Your task to perform on an android device: Do I have any events this weekend? Image 0: 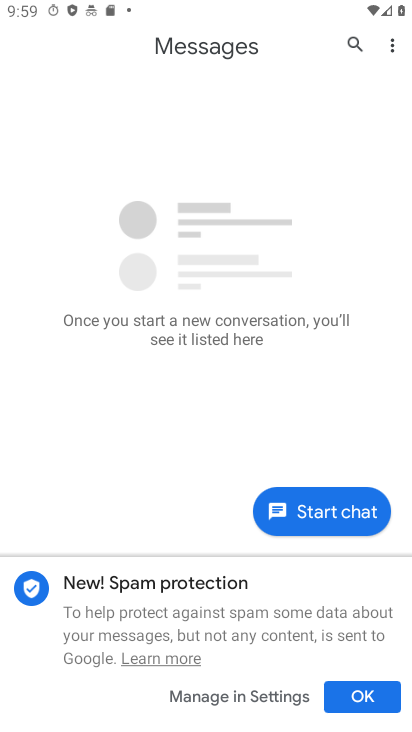
Step 0: click (354, 695)
Your task to perform on an android device: Do I have any events this weekend? Image 1: 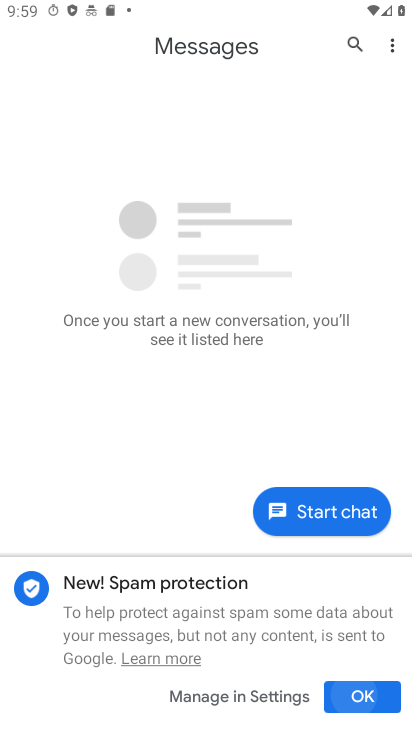
Step 1: click (355, 692)
Your task to perform on an android device: Do I have any events this weekend? Image 2: 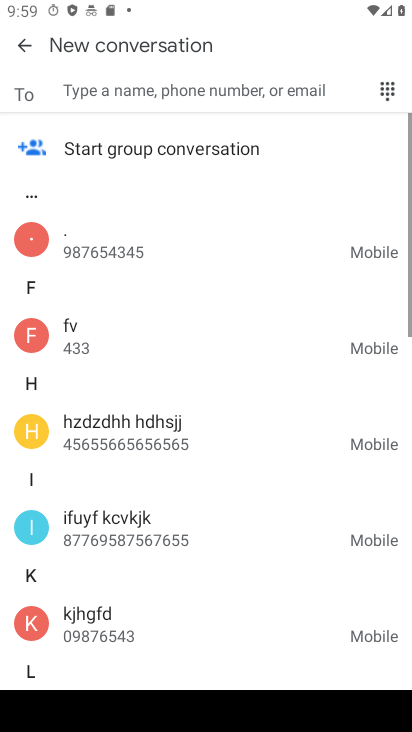
Step 2: click (23, 49)
Your task to perform on an android device: Do I have any events this weekend? Image 3: 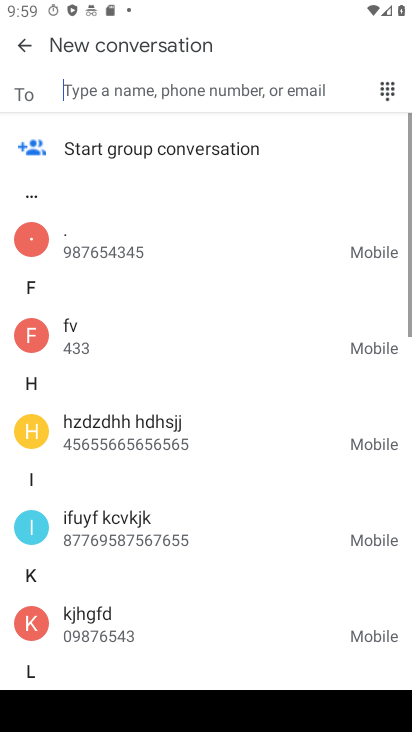
Step 3: click (22, 50)
Your task to perform on an android device: Do I have any events this weekend? Image 4: 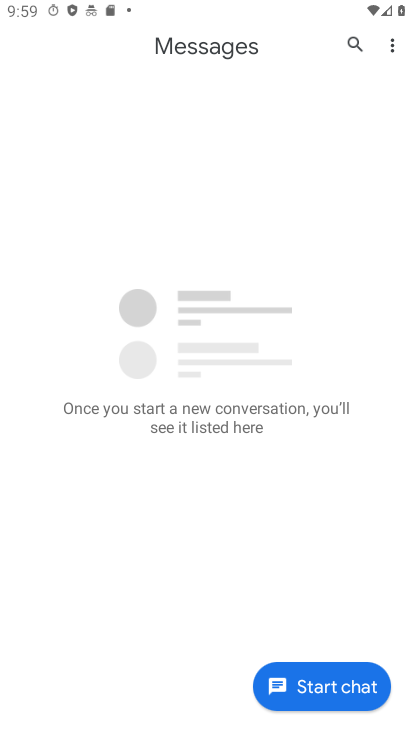
Step 4: press back button
Your task to perform on an android device: Do I have any events this weekend? Image 5: 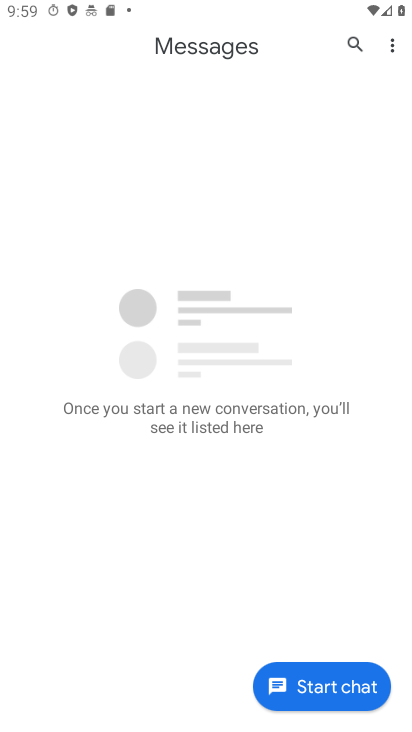
Step 5: press back button
Your task to perform on an android device: Do I have any events this weekend? Image 6: 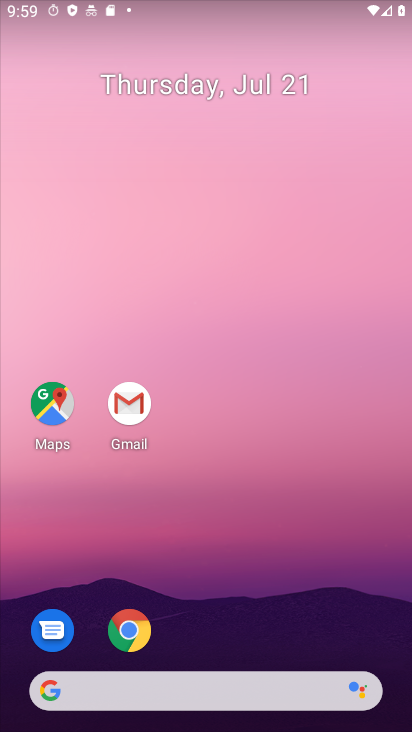
Step 6: drag from (309, 550) to (302, 71)
Your task to perform on an android device: Do I have any events this weekend? Image 7: 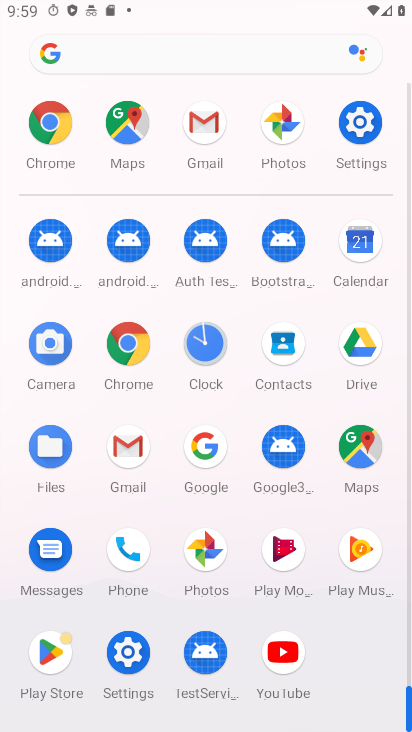
Step 7: click (356, 244)
Your task to perform on an android device: Do I have any events this weekend? Image 8: 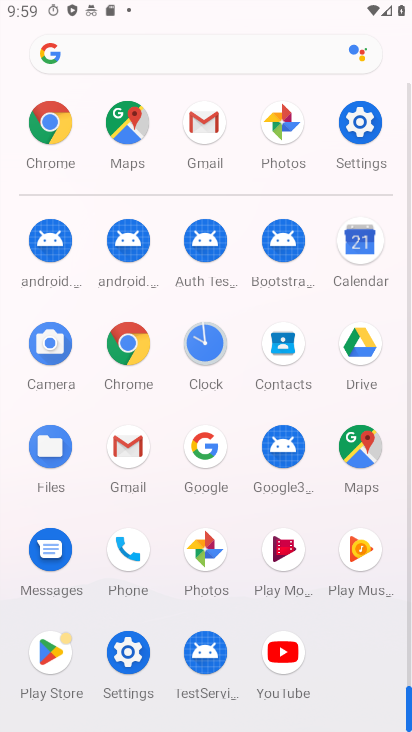
Step 8: click (360, 247)
Your task to perform on an android device: Do I have any events this weekend? Image 9: 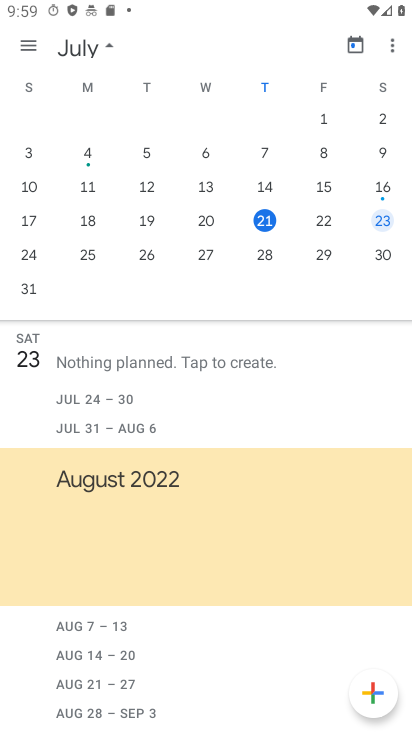
Step 9: task complete